Your task to perform on an android device: Go to Amazon Image 0: 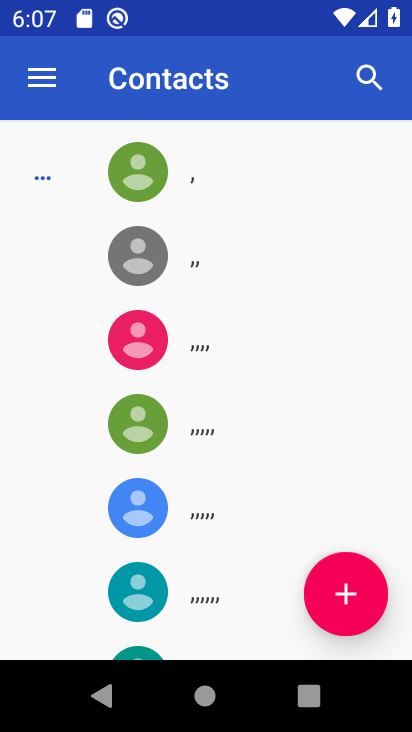
Step 0: press home button
Your task to perform on an android device: Go to Amazon Image 1: 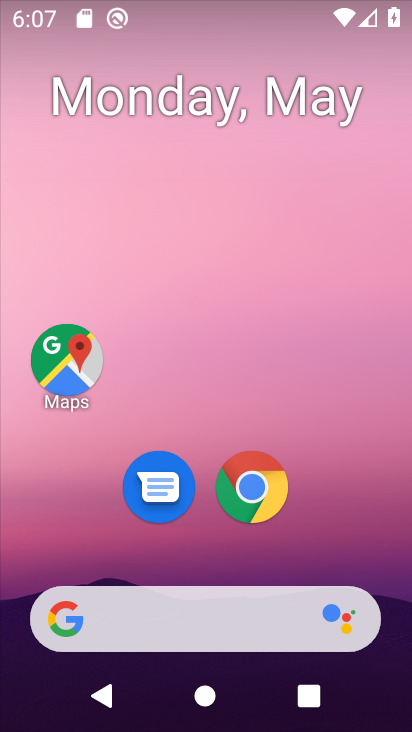
Step 1: click (245, 473)
Your task to perform on an android device: Go to Amazon Image 2: 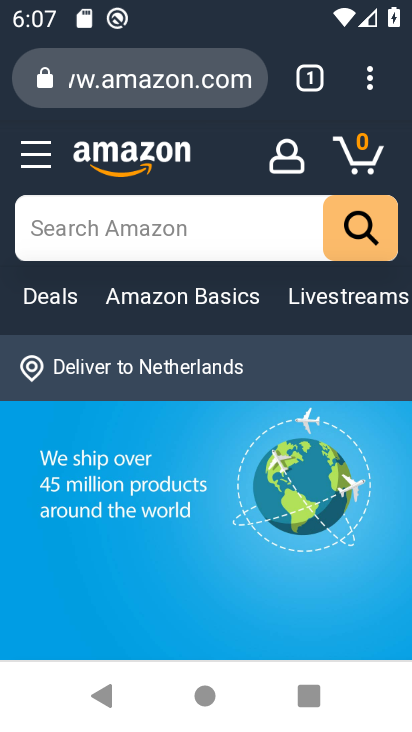
Step 2: task complete